Your task to perform on an android device: Open Android settings Image 0: 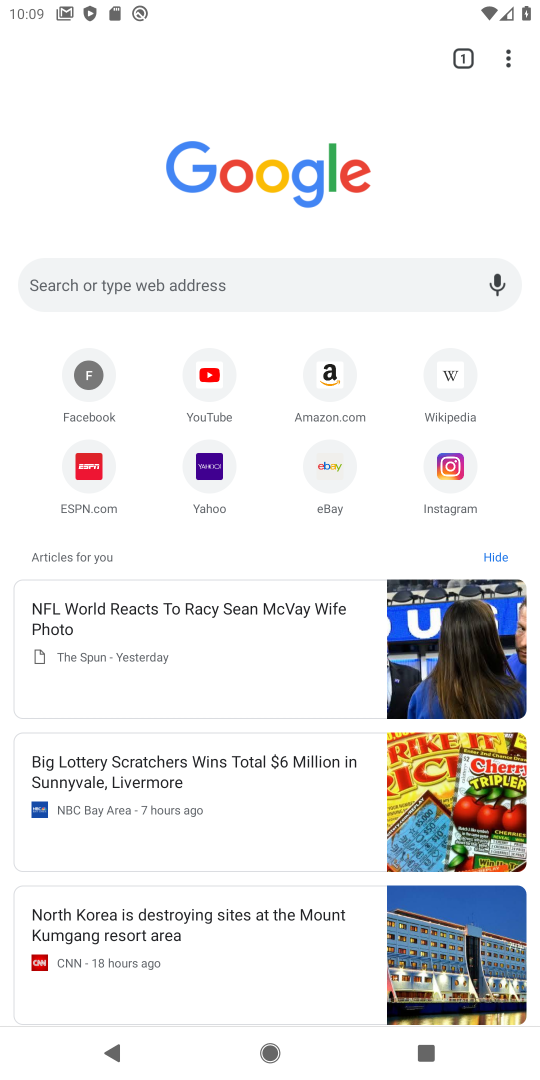
Step 0: press home button
Your task to perform on an android device: Open Android settings Image 1: 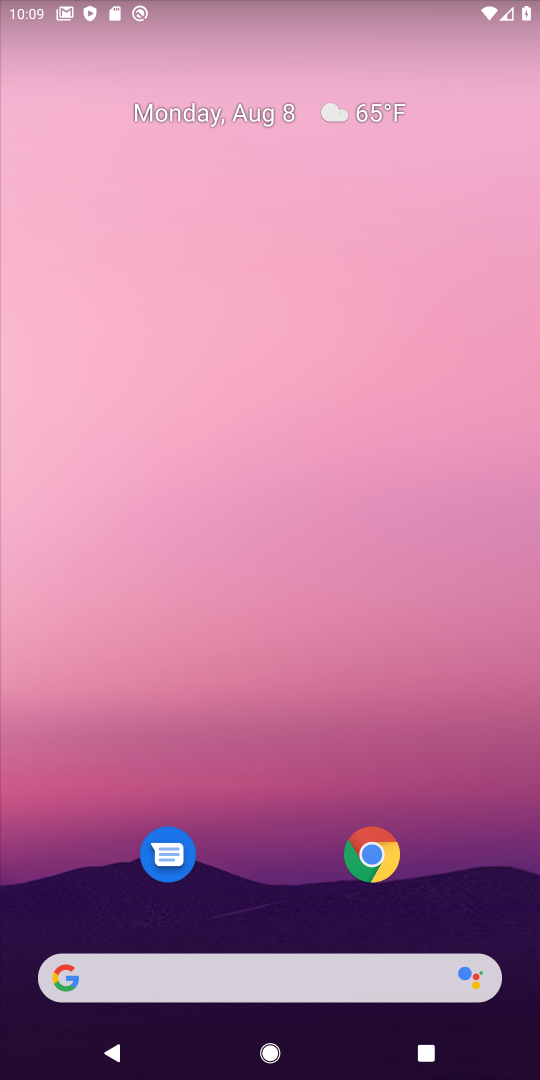
Step 1: drag from (231, 910) to (206, 167)
Your task to perform on an android device: Open Android settings Image 2: 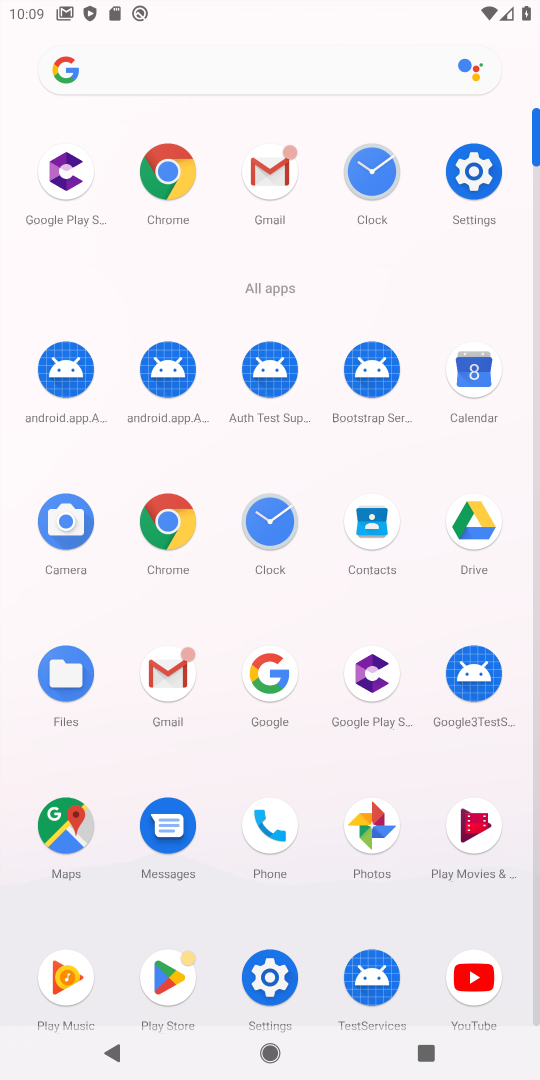
Step 2: click (477, 176)
Your task to perform on an android device: Open Android settings Image 3: 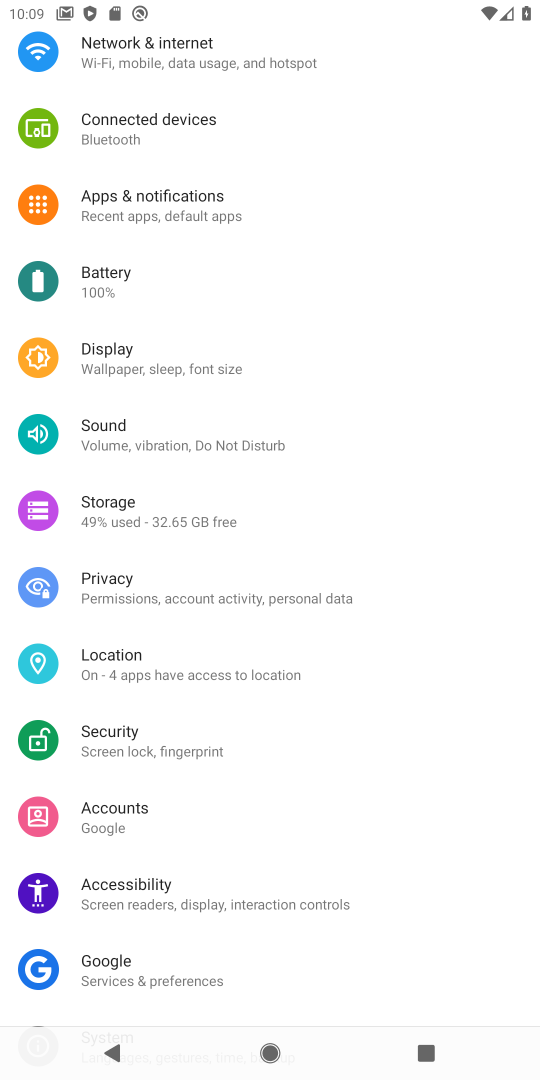
Step 3: drag from (175, 942) to (189, 153)
Your task to perform on an android device: Open Android settings Image 4: 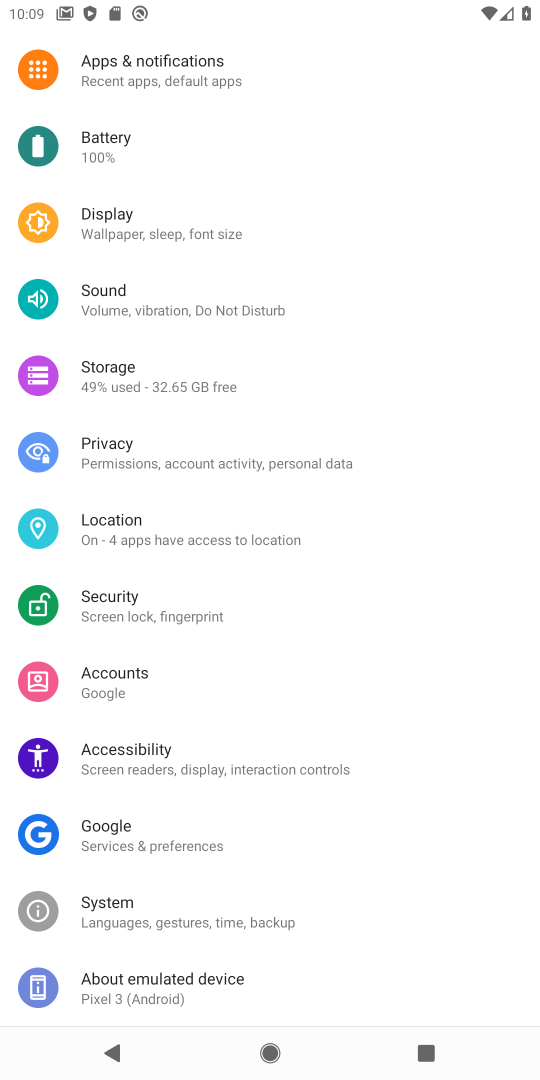
Step 4: click (213, 972)
Your task to perform on an android device: Open Android settings Image 5: 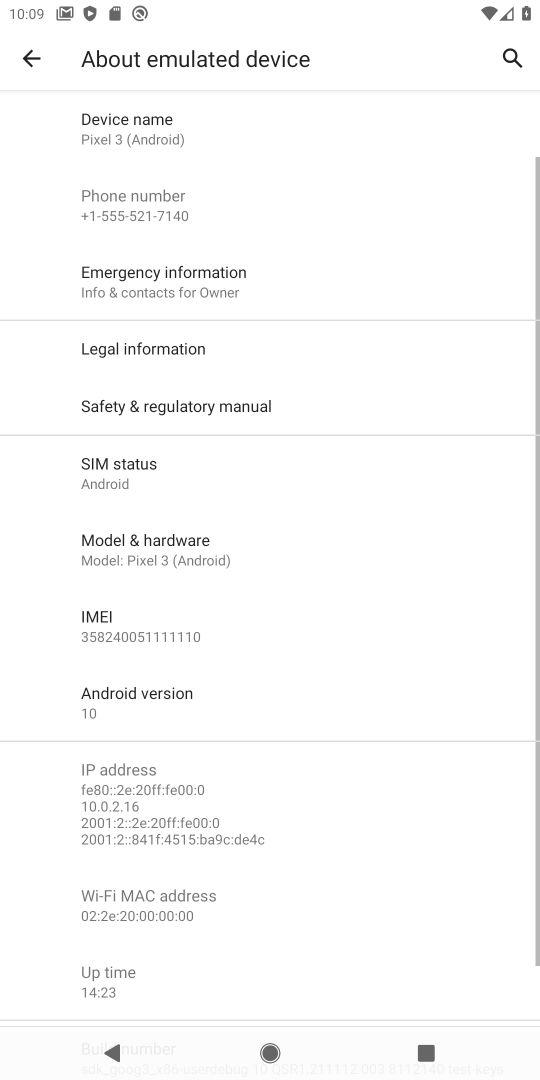
Step 5: click (141, 711)
Your task to perform on an android device: Open Android settings Image 6: 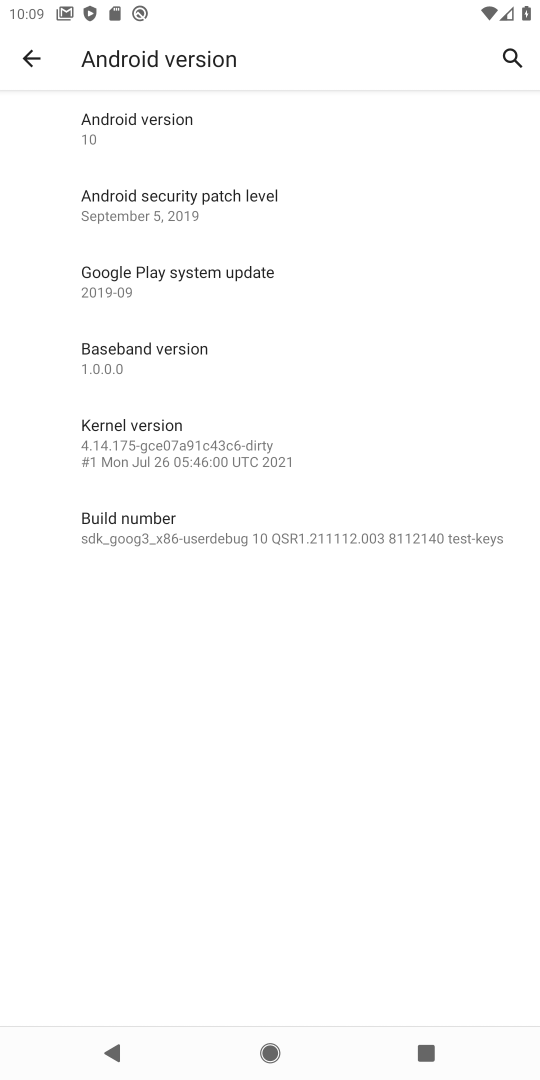
Step 6: task complete